Your task to perform on an android device: open chrome privacy settings Image 0: 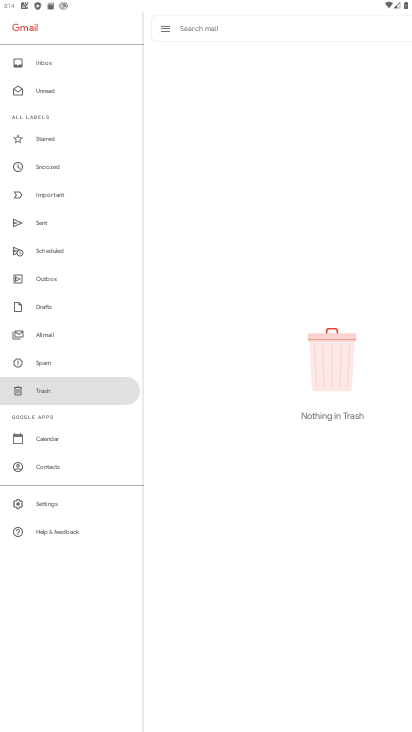
Step 0: press home button
Your task to perform on an android device: open chrome privacy settings Image 1: 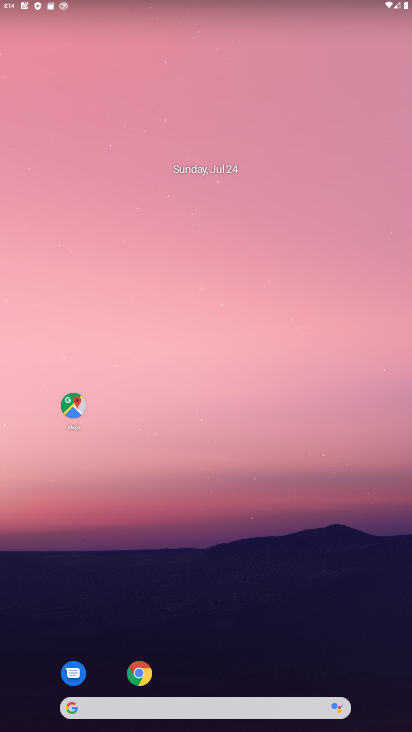
Step 1: click (136, 670)
Your task to perform on an android device: open chrome privacy settings Image 2: 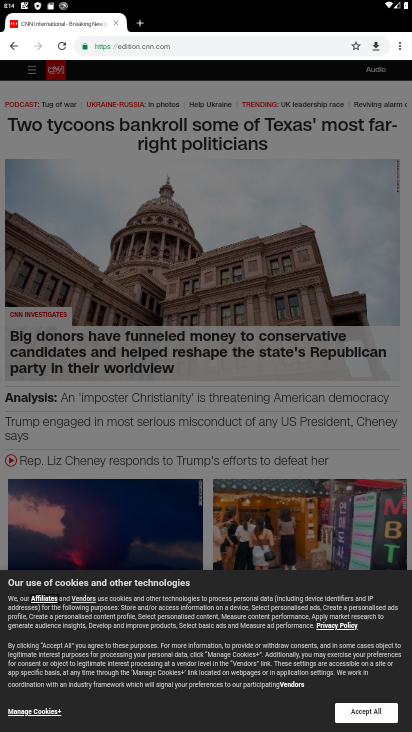
Step 2: click (398, 49)
Your task to perform on an android device: open chrome privacy settings Image 3: 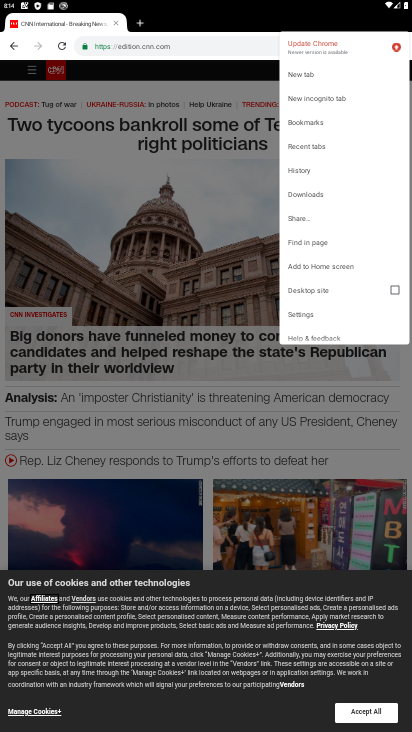
Step 3: click (298, 313)
Your task to perform on an android device: open chrome privacy settings Image 4: 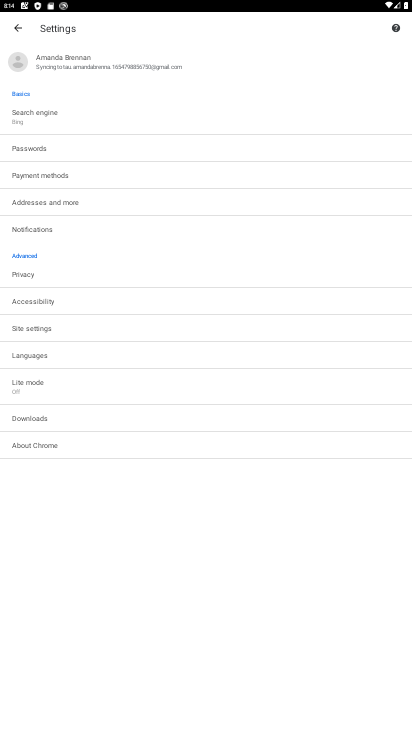
Step 4: click (24, 269)
Your task to perform on an android device: open chrome privacy settings Image 5: 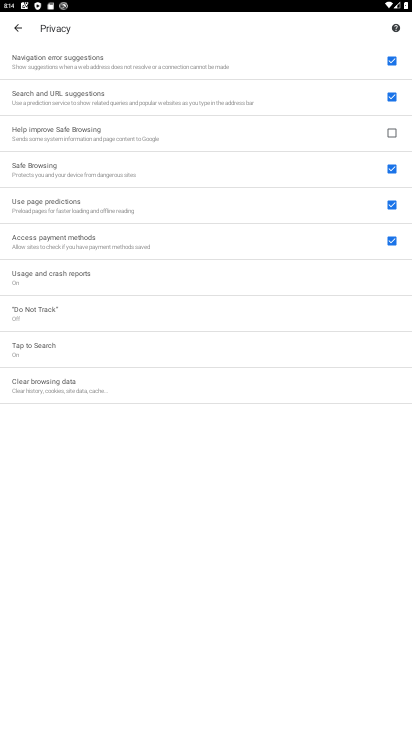
Step 5: task complete